Your task to perform on an android device: toggle sleep mode Image 0: 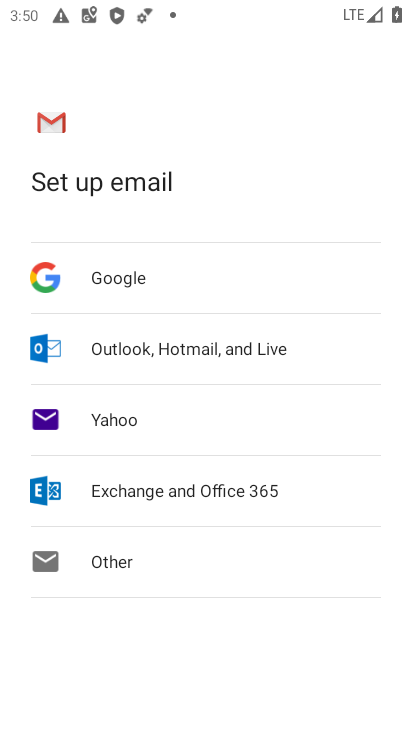
Step 0: press home button
Your task to perform on an android device: toggle sleep mode Image 1: 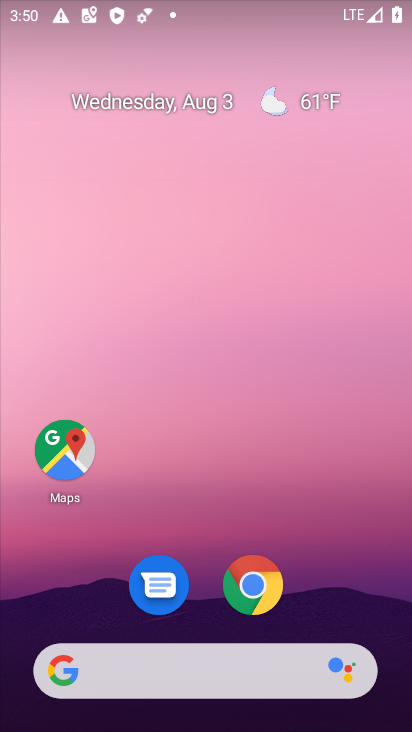
Step 1: drag from (397, 677) to (264, 62)
Your task to perform on an android device: toggle sleep mode Image 2: 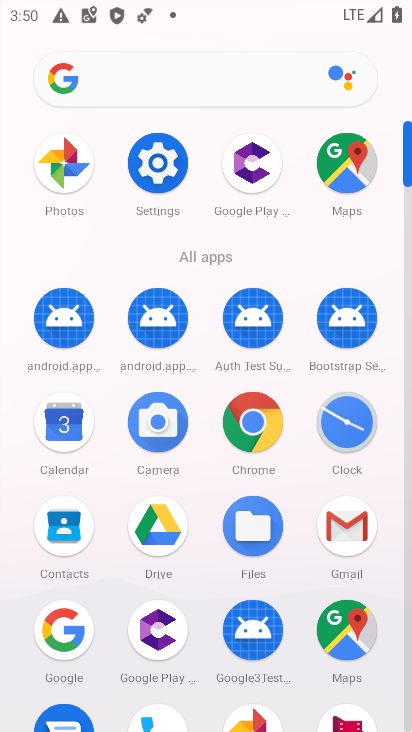
Step 2: drag from (154, 163) to (188, 465)
Your task to perform on an android device: toggle sleep mode Image 3: 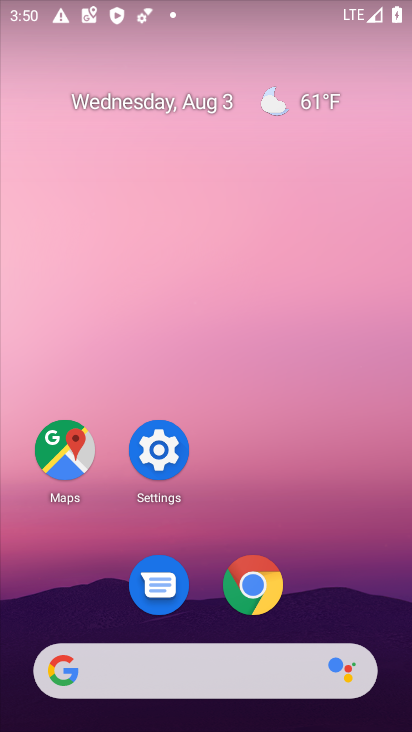
Step 3: drag from (391, 694) to (329, 47)
Your task to perform on an android device: toggle sleep mode Image 4: 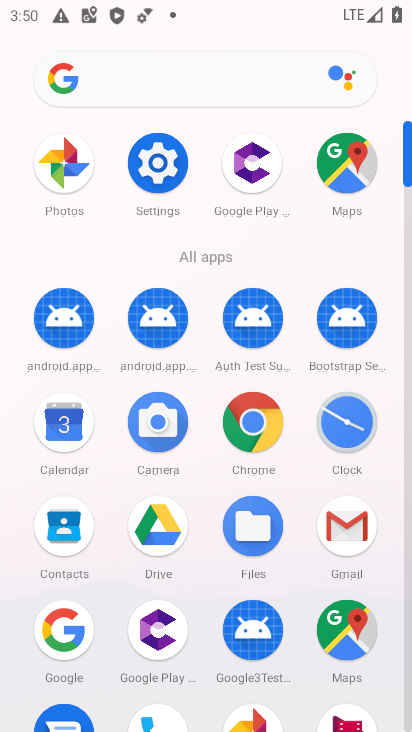
Step 4: drag from (344, 430) to (254, 448)
Your task to perform on an android device: toggle sleep mode Image 5: 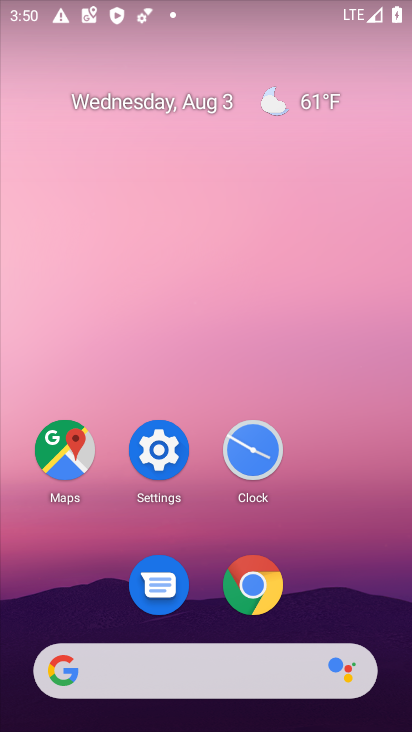
Step 5: drag from (389, 678) to (333, 169)
Your task to perform on an android device: toggle sleep mode Image 6: 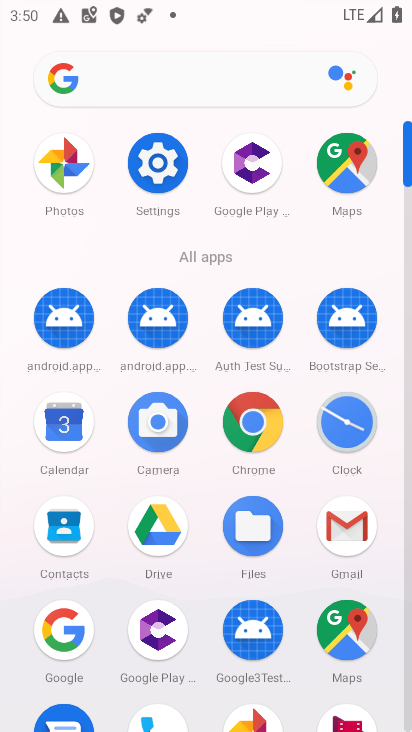
Step 6: drag from (61, 423) to (321, 440)
Your task to perform on an android device: toggle sleep mode Image 7: 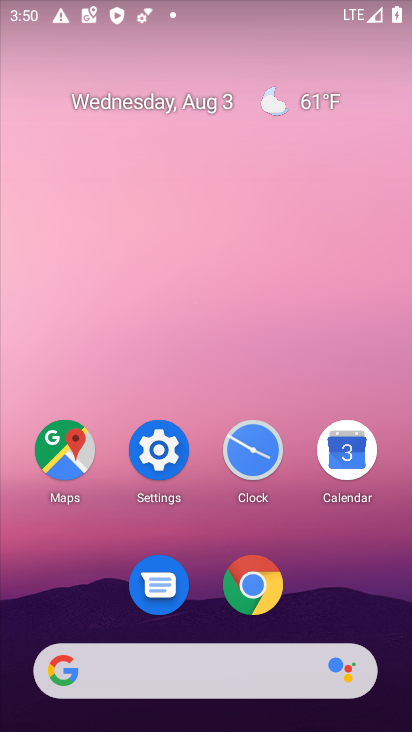
Step 7: drag from (393, 711) to (328, 149)
Your task to perform on an android device: toggle sleep mode Image 8: 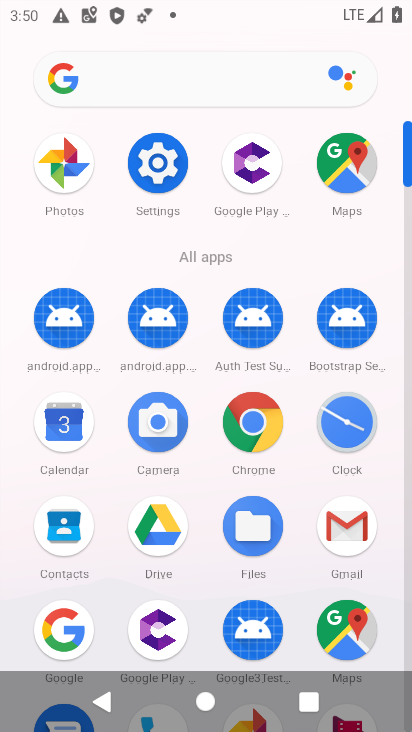
Step 8: drag from (210, 608) to (185, 223)
Your task to perform on an android device: toggle sleep mode Image 9: 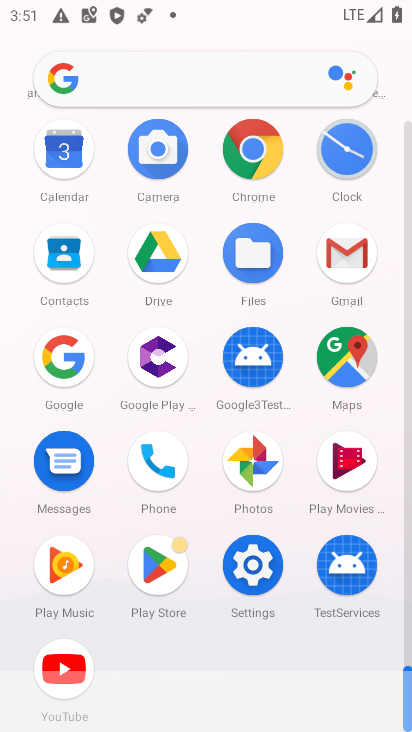
Step 9: press back button
Your task to perform on an android device: toggle sleep mode Image 10: 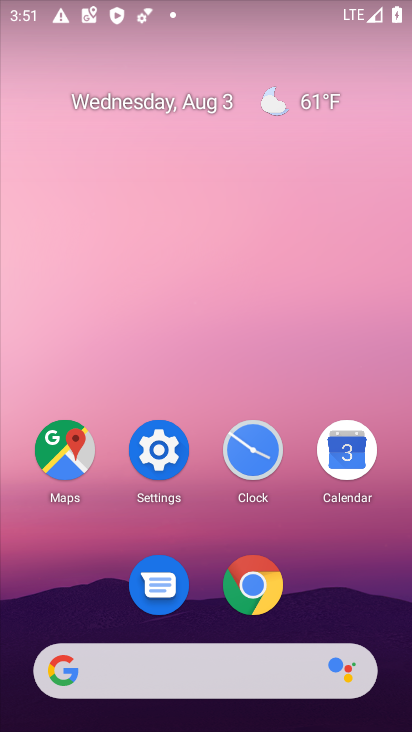
Step 10: drag from (378, 677) to (264, 131)
Your task to perform on an android device: toggle sleep mode Image 11: 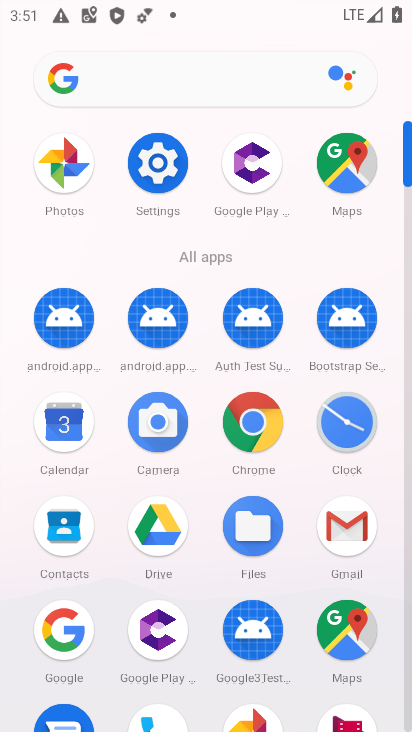
Step 11: drag from (337, 524) to (235, 348)
Your task to perform on an android device: toggle sleep mode Image 12: 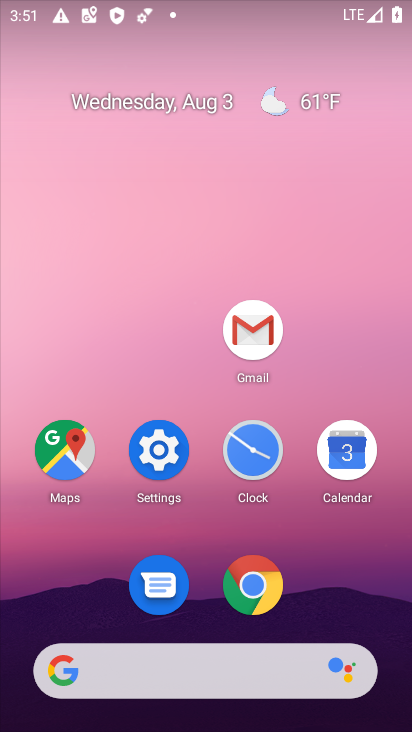
Step 12: click (157, 450)
Your task to perform on an android device: toggle sleep mode Image 13: 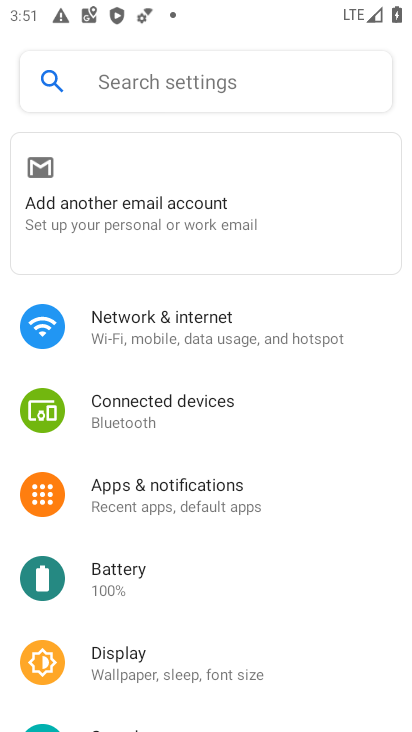
Step 13: click (112, 670)
Your task to perform on an android device: toggle sleep mode Image 14: 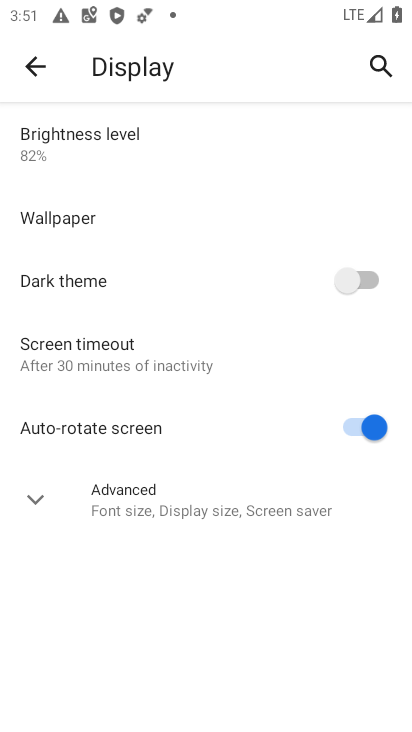
Step 14: click (59, 359)
Your task to perform on an android device: toggle sleep mode Image 15: 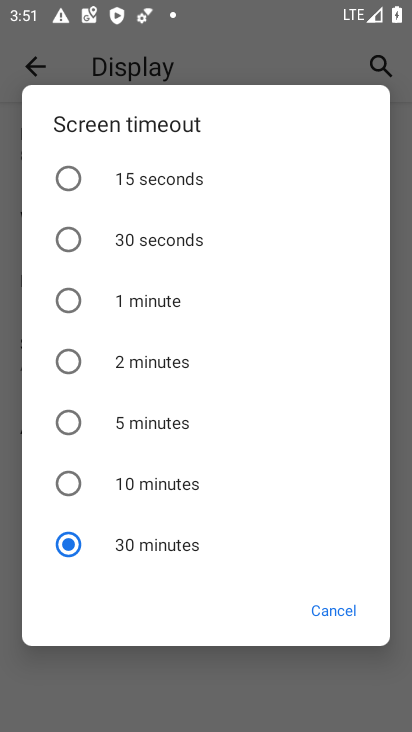
Step 15: click (62, 424)
Your task to perform on an android device: toggle sleep mode Image 16: 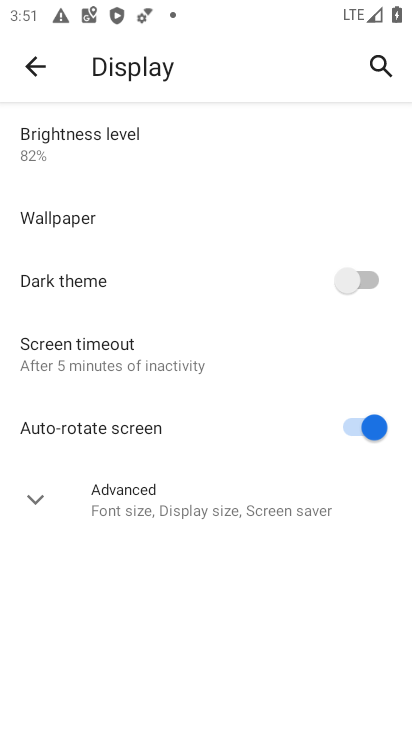
Step 16: task complete